Your task to perform on an android device: toggle notification dots Image 0: 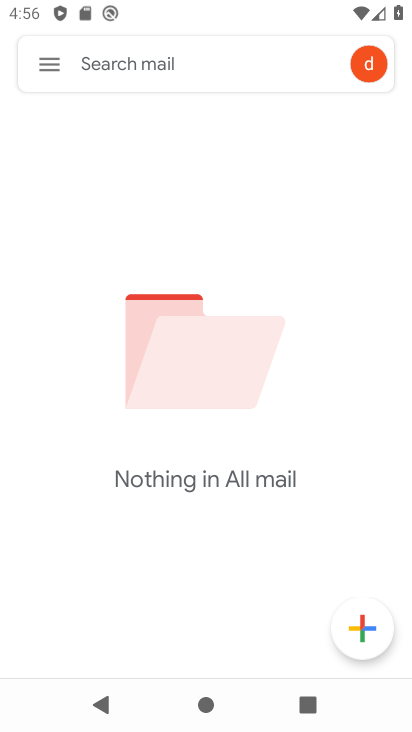
Step 0: drag from (300, 585) to (106, 20)
Your task to perform on an android device: toggle notification dots Image 1: 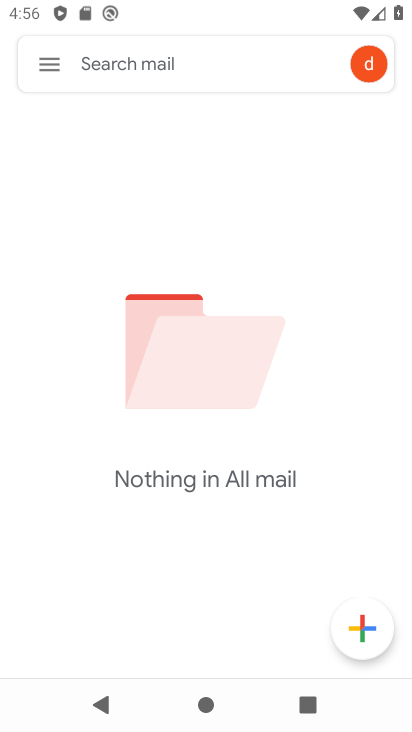
Step 1: press back button
Your task to perform on an android device: toggle notification dots Image 2: 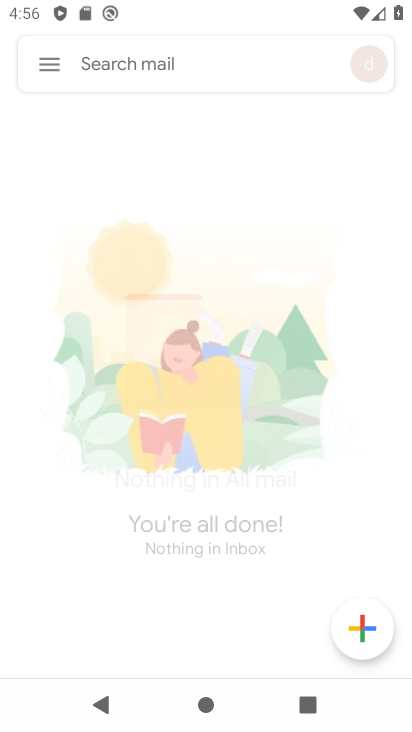
Step 2: press back button
Your task to perform on an android device: toggle notification dots Image 3: 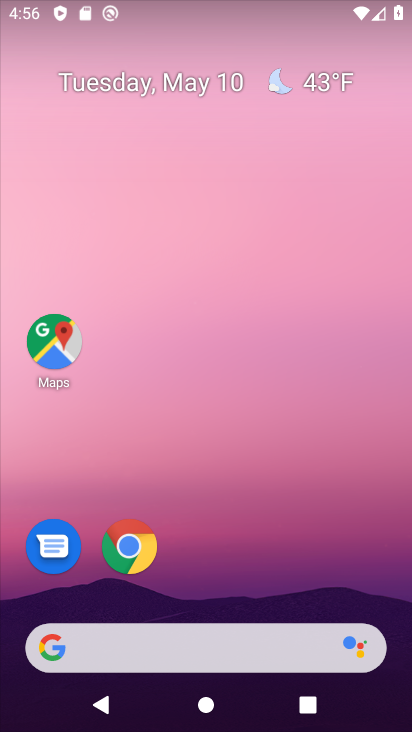
Step 3: drag from (284, 499) to (33, 87)
Your task to perform on an android device: toggle notification dots Image 4: 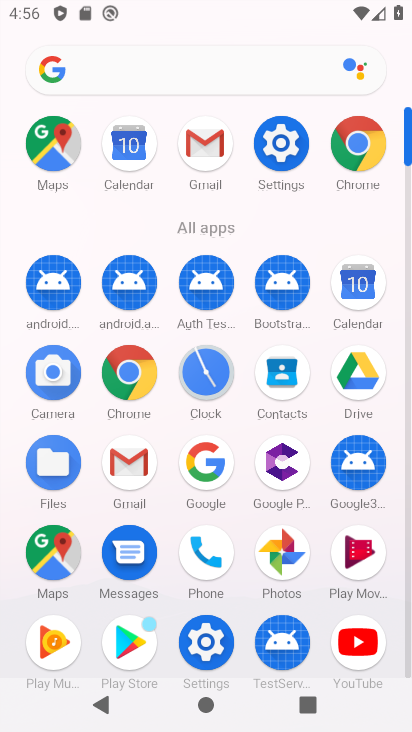
Step 4: click (272, 156)
Your task to perform on an android device: toggle notification dots Image 5: 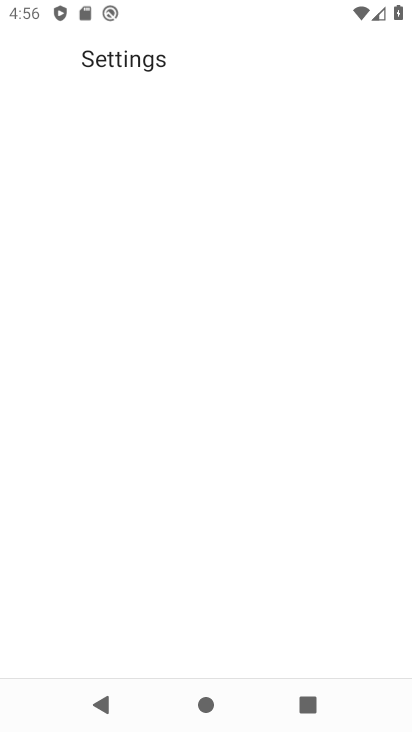
Step 5: click (272, 156)
Your task to perform on an android device: toggle notification dots Image 6: 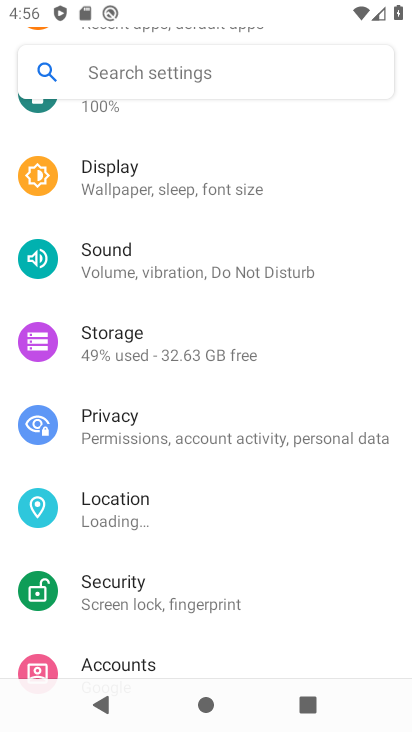
Step 6: drag from (166, 459) to (97, 185)
Your task to perform on an android device: toggle notification dots Image 7: 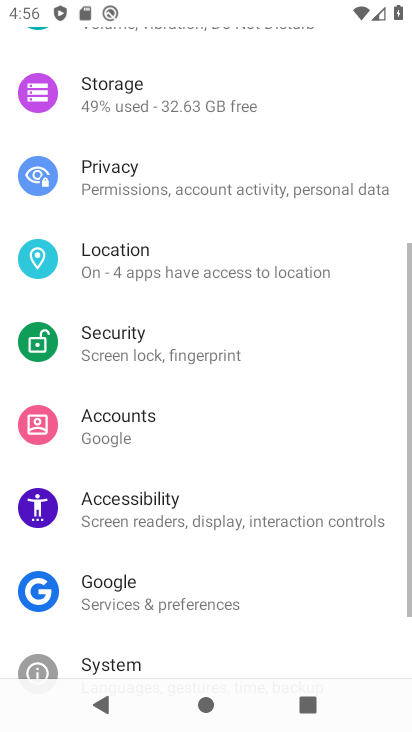
Step 7: drag from (148, 430) to (93, 138)
Your task to perform on an android device: toggle notification dots Image 8: 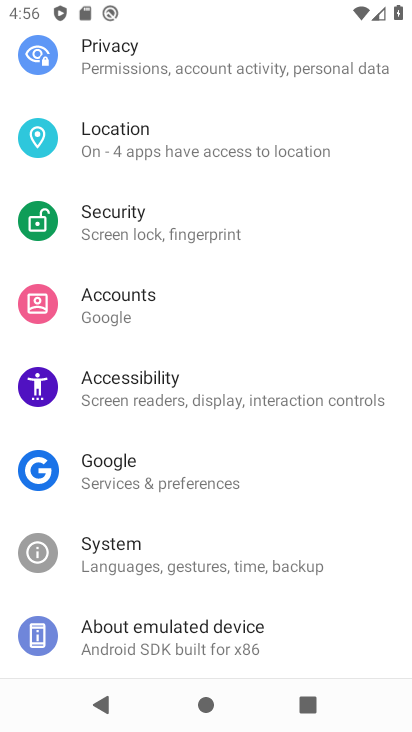
Step 8: drag from (132, 183) to (169, 469)
Your task to perform on an android device: toggle notification dots Image 9: 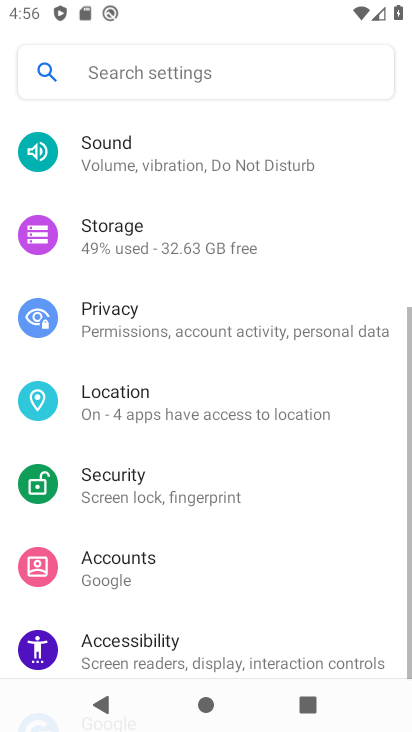
Step 9: drag from (156, 309) to (179, 533)
Your task to perform on an android device: toggle notification dots Image 10: 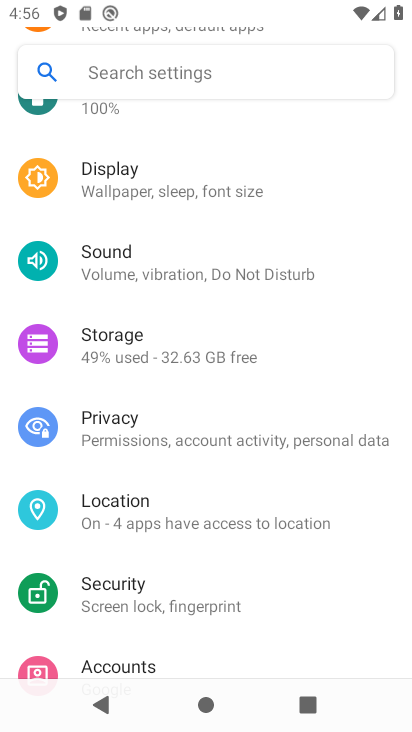
Step 10: drag from (154, 586) to (86, 117)
Your task to perform on an android device: toggle notification dots Image 11: 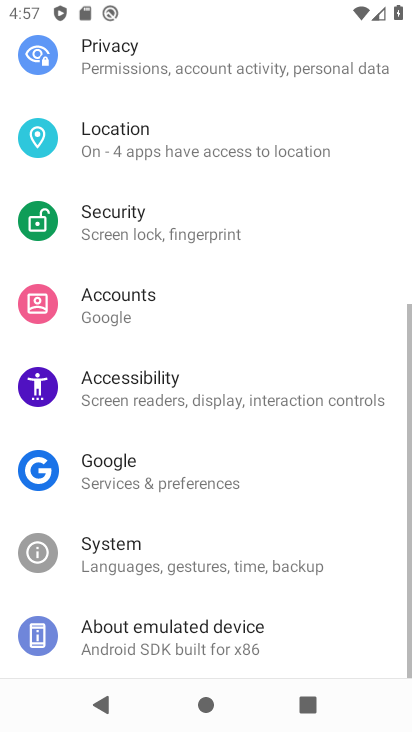
Step 11: drag from (142, 385) to (109, 97)
Your task to perform on an android device: toggle notification dots Image 12: 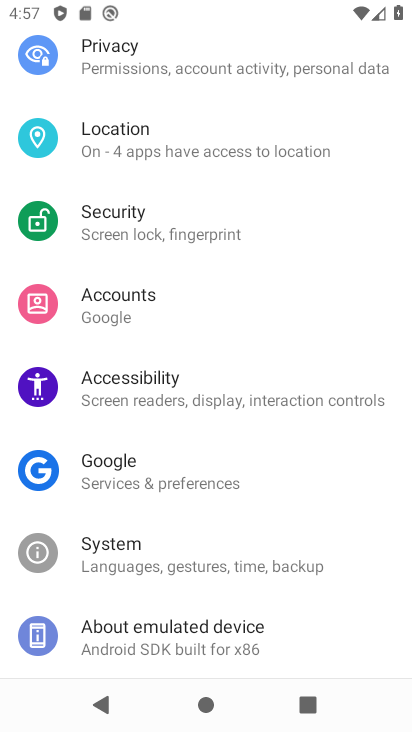
Step 12: drag from (120, 182) to (160, 503)
Your task to perform on an android device: toggle notification dots Image 13: 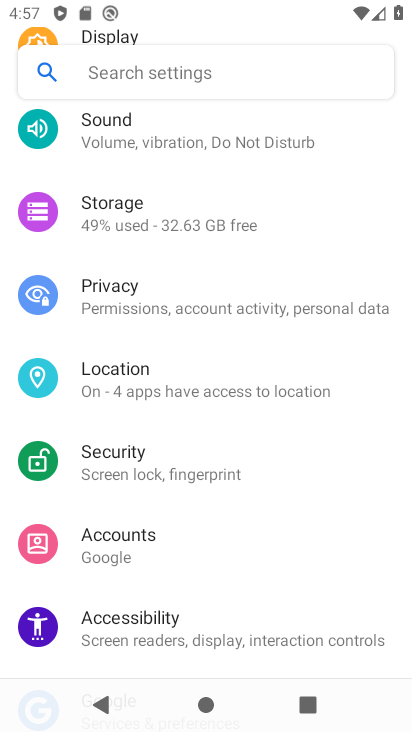
Step 13: drag from (176, 284) to (202, 507)
Your task to perform on an android device: toggle notification dots Image 14: 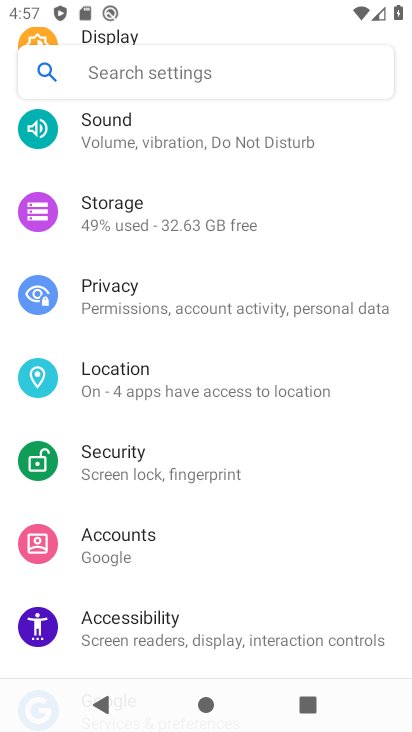
Step 14: drag from (130, 151) to (174, 475)
Your task to perform on an android device: toggle notification dots Image 15: 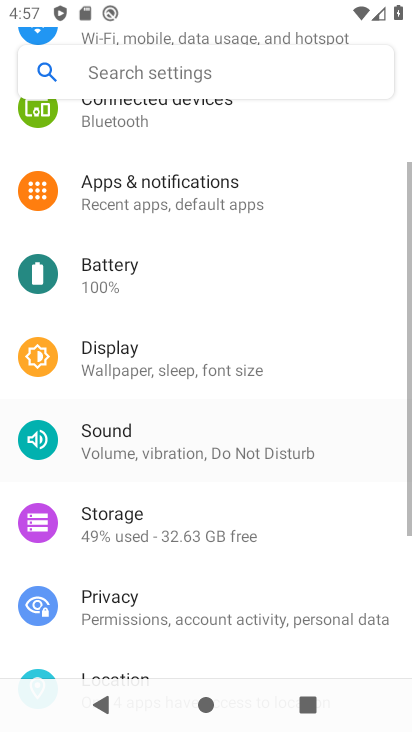
Step 15: drag from (181, 199) to (244, 555)
Your task to perform on an android device: toggle notification dots Image 16: 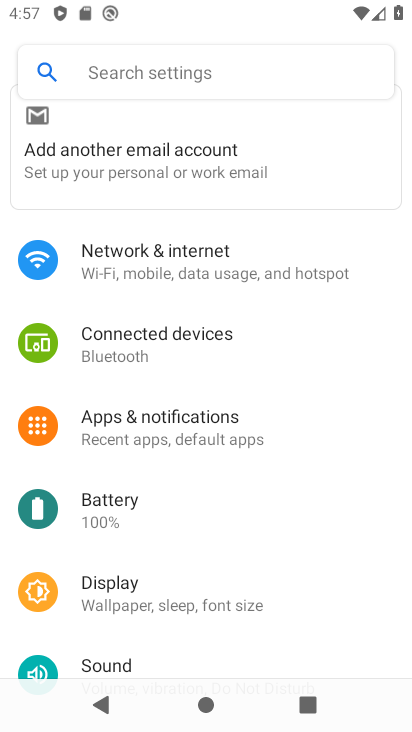
Step 16: click (135, 430)
Your task to perform on an android device: toggle notification dots Image 17: 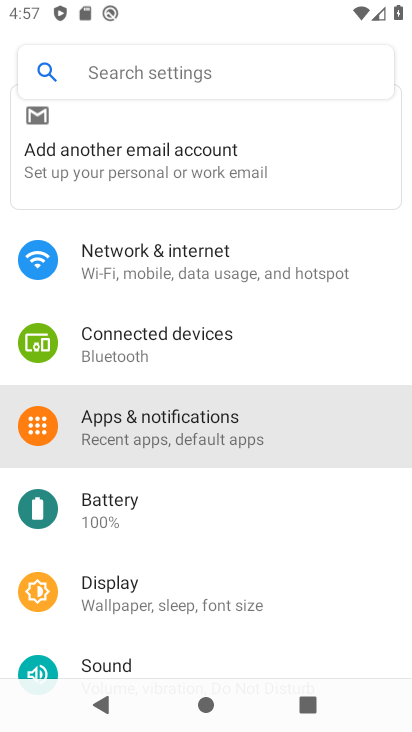
Step 17: click (137, 423)
Your task to perform on an android device: toggle notification dots Image 18: 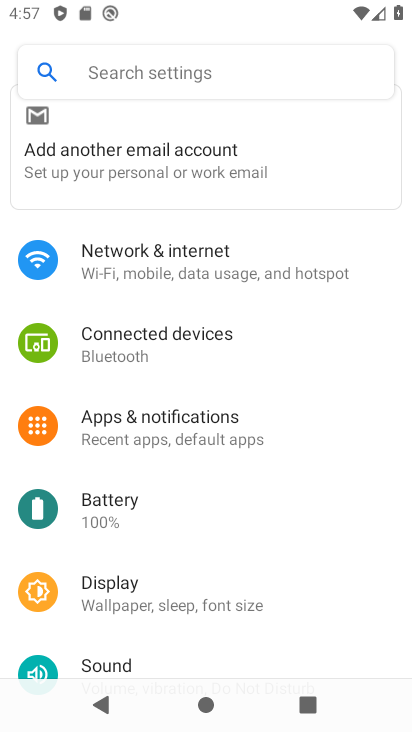
Step 18: click (138, 432)
Your task to perform on an android device: toggle notification dots Image 19: 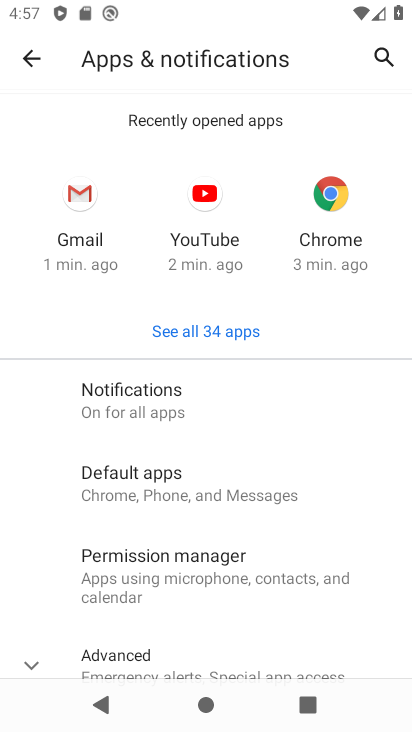
Step 19: click (120, 396)
Your task to perform on an android device: toggle notification dots Image 20: 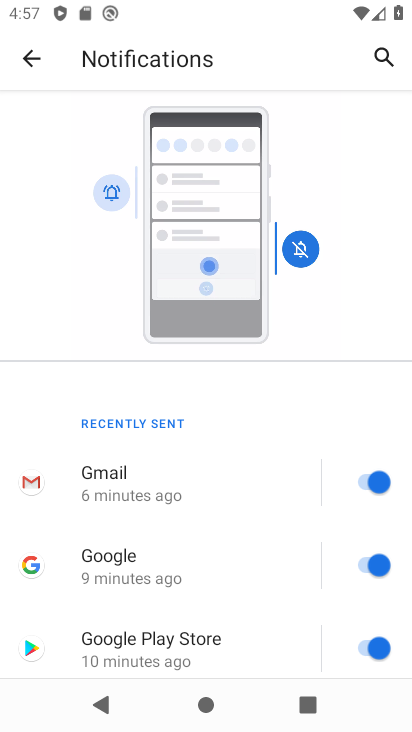
Step 20: drag from (204, 524) to (105, 98)
Your task to perform on an android device: toggle notification dots Image 21: 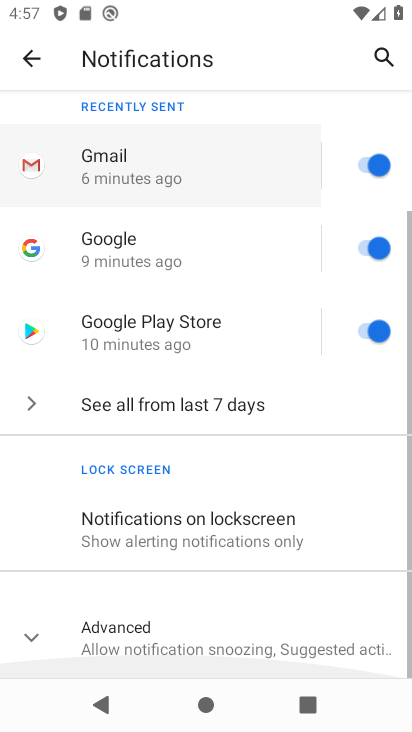
Step 21: drag from (206, 496) to (130, 166)
Your task to perform on an android device: toggle notification dots Image 22: 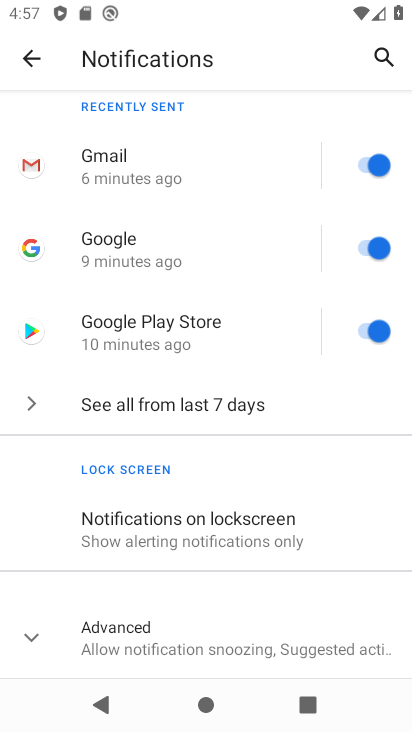
Step 22: drag from (190, 583) to (129, 213)
Your task to perform on an android device: toggle notification dots Image 23: 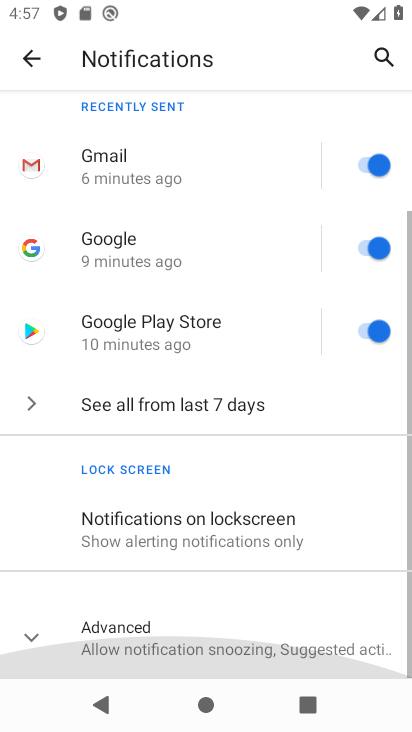
Step 23: drag from (189, 525) to (130, 256)
Your task to perform on an android device: toggle notification dots Image 24: 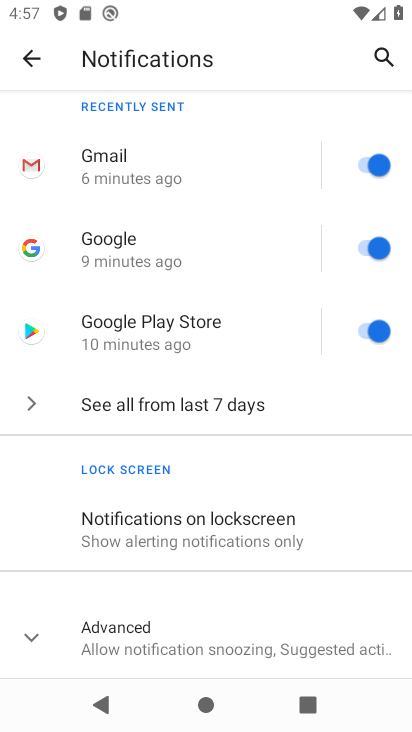
Step 24: drag from (180, 606) to (142, 277)
Your task to perform on an android device: toggle notification dots Image 25: 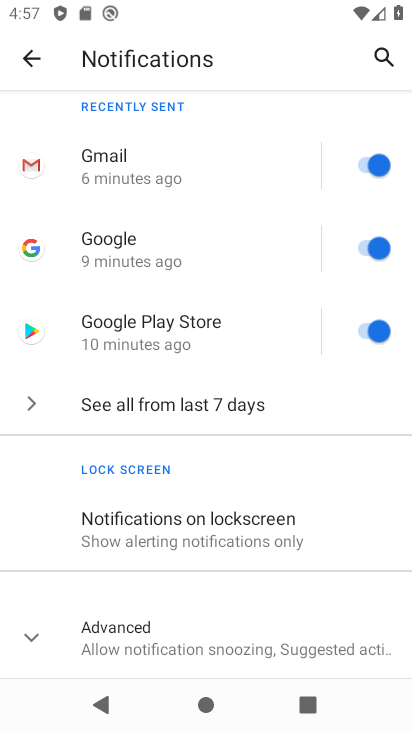
Step 25: click (183, 647)
Your task to perform on an android device: toggle notification dots Image 26: 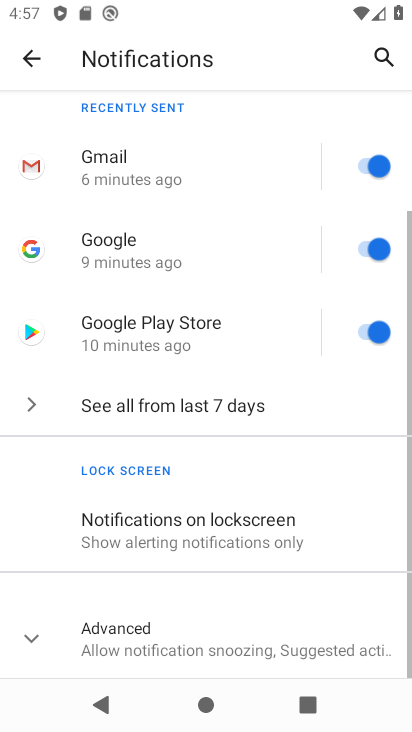
Step 26: click (190, 649)
Your task to perform on an android device: toggle notification dots Image 27: 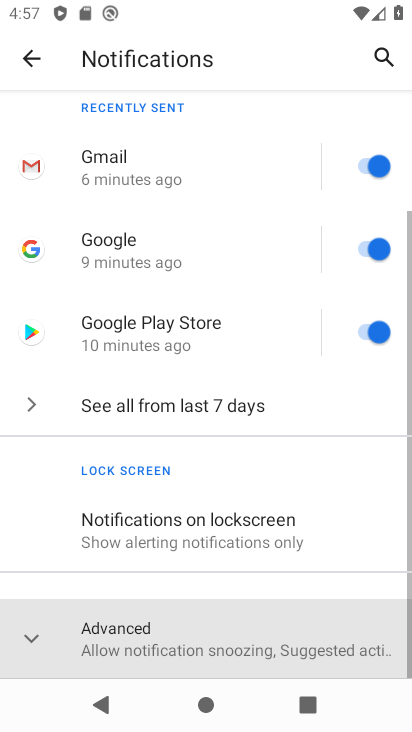
Step 27: click (190, 648)
Your task to perform on an android device: toggle notification dots Image 28: 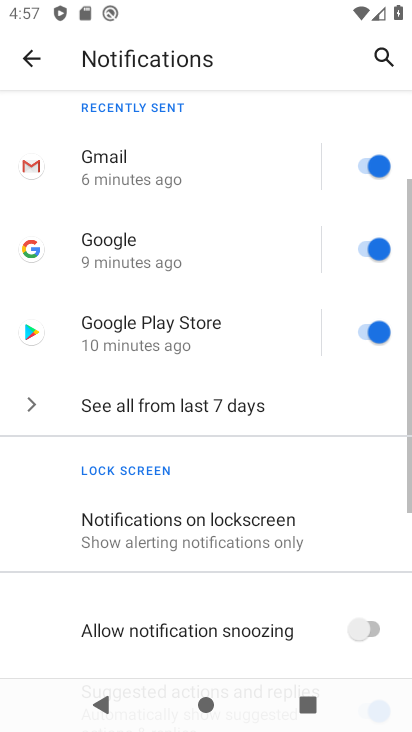
Step 28: drag from (240, 438) to (168, 190)
Your task to perform on an android device: toggle notification dots Image 29: 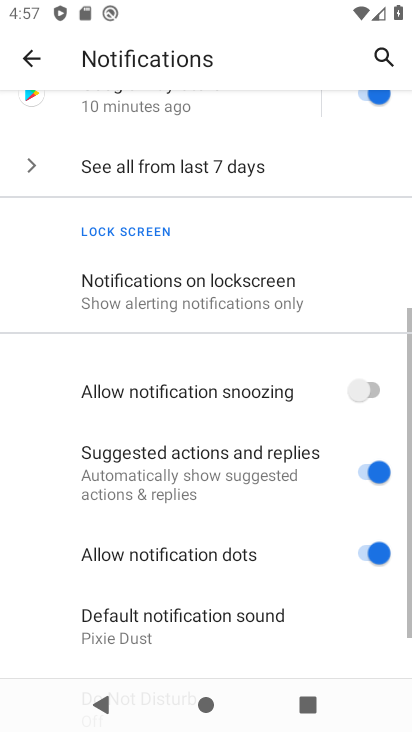
Step 29: drag from (242, 514) to (148, 155)
Your task to perform on an android device: toggle notification dots Image 30: 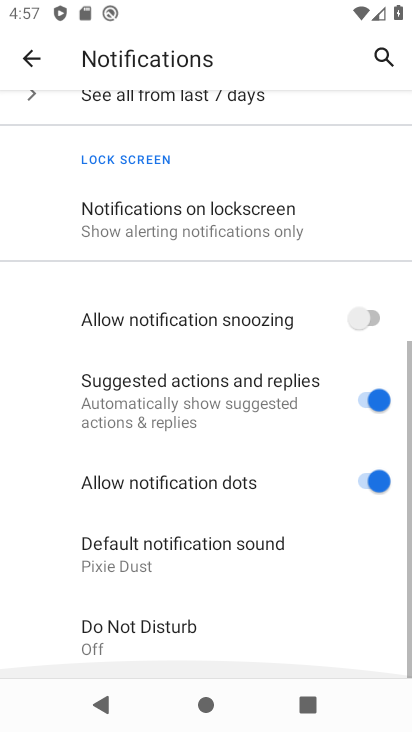
Step 30: drag from (351, 571) to (275, 99)
Your task to perform on an android device: toggle notification dots Image 31: 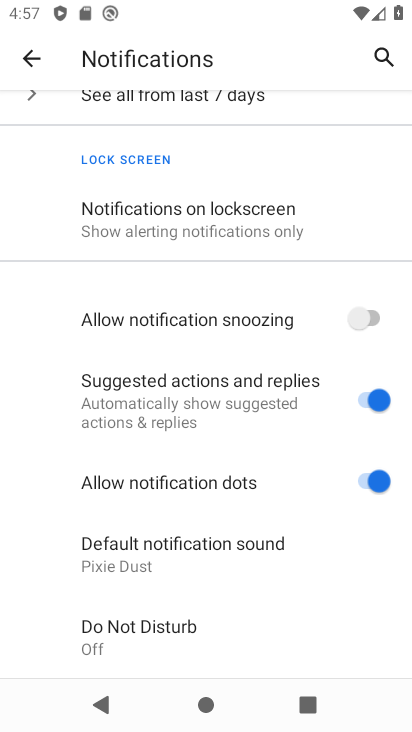
Step 31: click (372, 550)
Your task to perform on an android device: toggle notification dots Image 32: 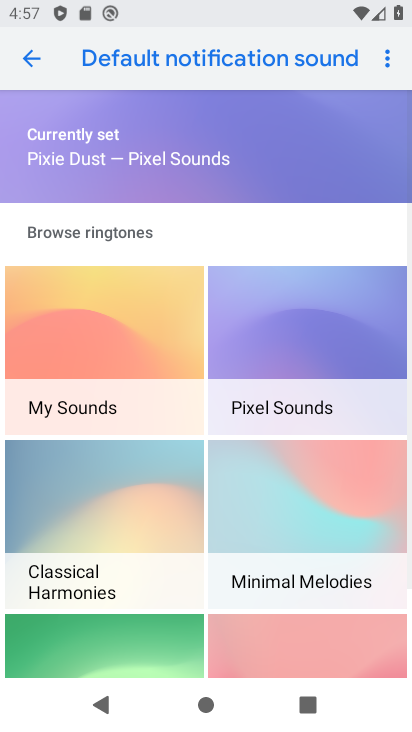
Step 32: task complete